Your task to perform on an android device: toggle javascript in the chrome app Image 0: 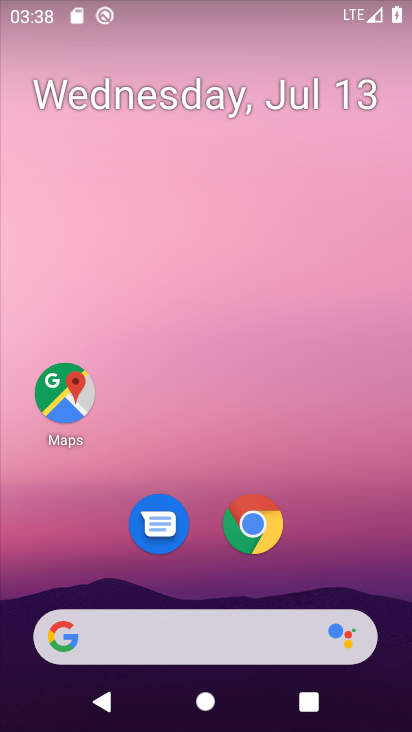
Step 0: click (269, 529)
Your task to perform on an android device: toggle javascript in the chrome app Image 1: 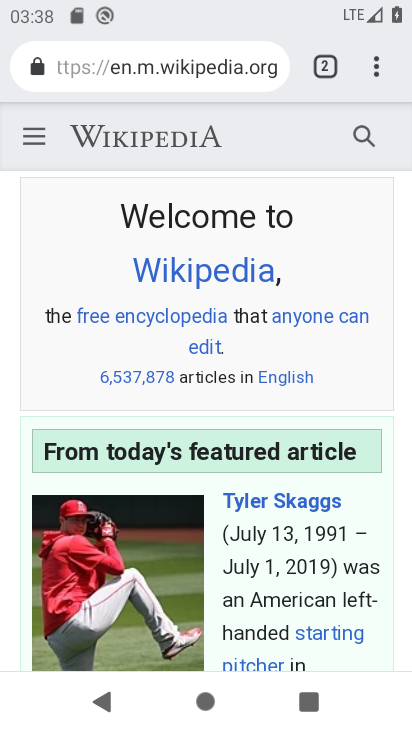
Step 1: click (378, 66)
Your task to perform on an android device: toggle javascript in the chrome app Image 2: 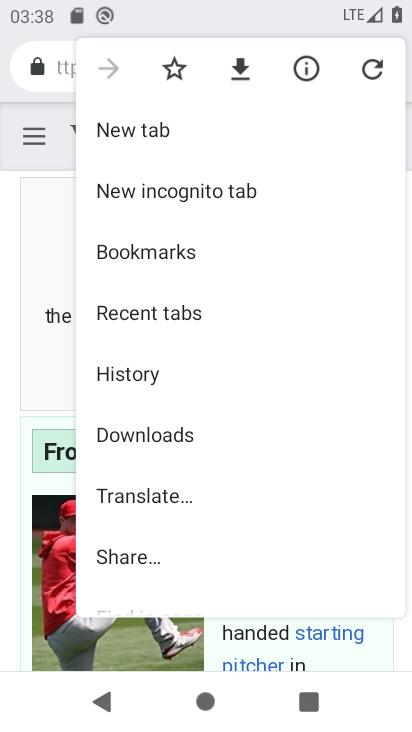
Step 2: drag from (279, 476) to (294, 160)
Your task to perform on an android device: toggle javascript in the chrome app Image 3: 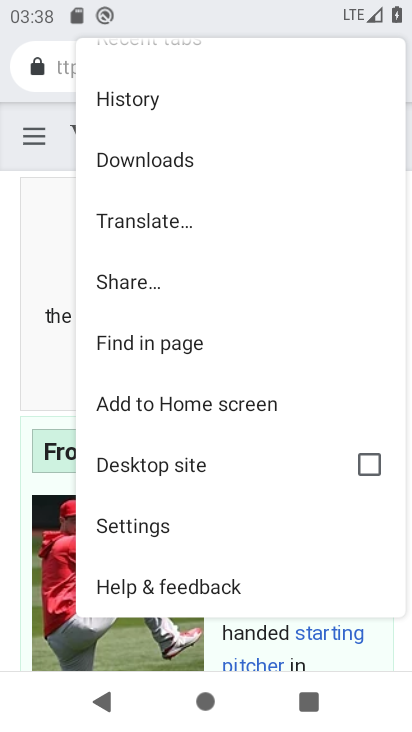
Step 3: click (146, 531)
Your task to perform on an android device: toggle javascript in the chrome app Image 4: 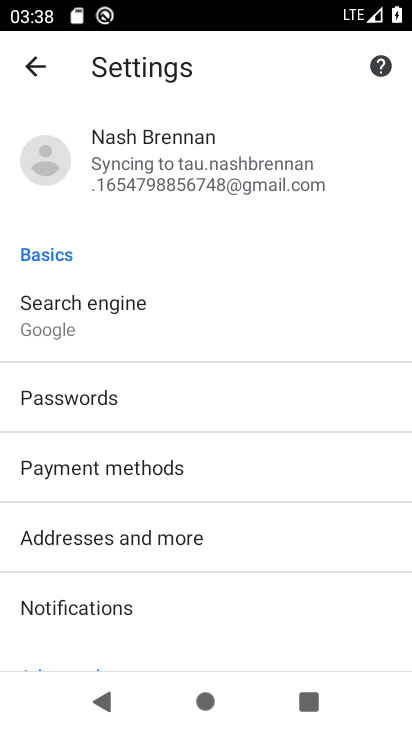
Step 4: drag from (250, 495) to (266, 203)
Your task to perform on an android device: toggle javascript in the chrome app Image 5: 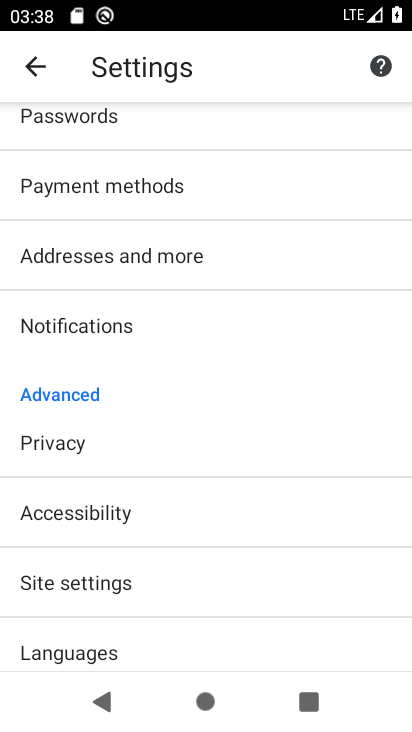
Step 5: click (112, 578)
Your task to perform on an android device: toggle javascript in the chrome app Image 6: 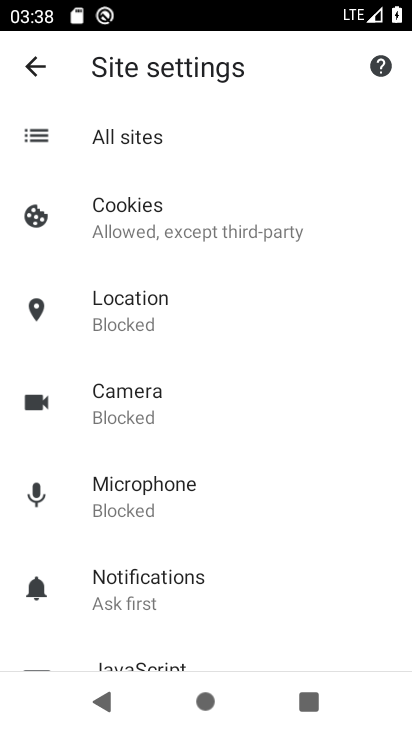
Step 6: drag from (225, 543) to (223, 333)
Your task to perform on an android device: toggle javascript in the chrome app Image 7: 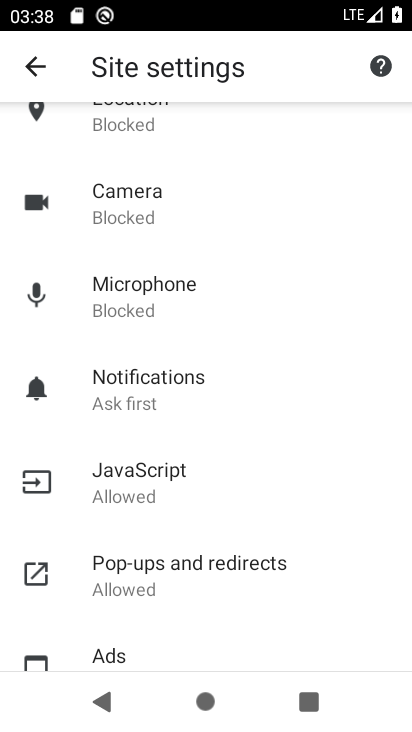
Step 7: click (177, 483)
Your task to perform on an android device: toggle javascript in the chrome app Image 8: 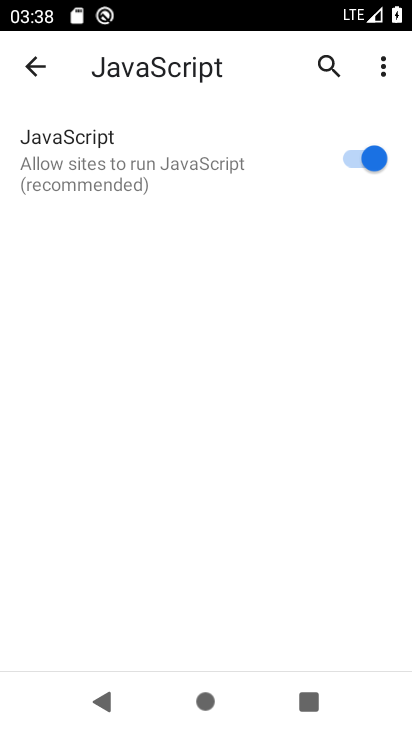
Step 8: click (354, 160)
Your task to perform on an android device: toggle javascript in the chrome app Image 9: 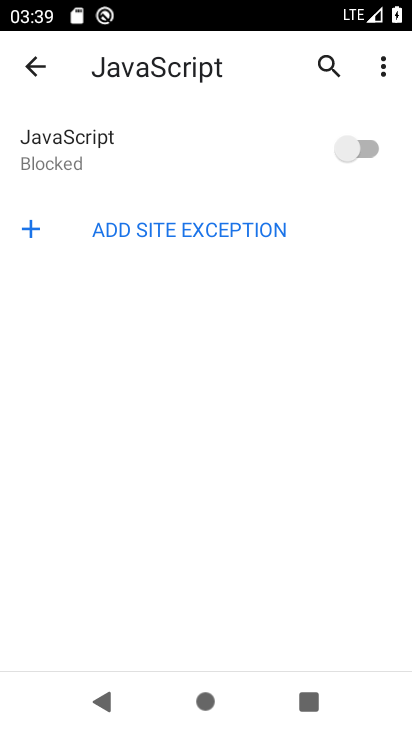
Step 9: task complete